Your task to perform on an android device: change keyboard looks Image 0: 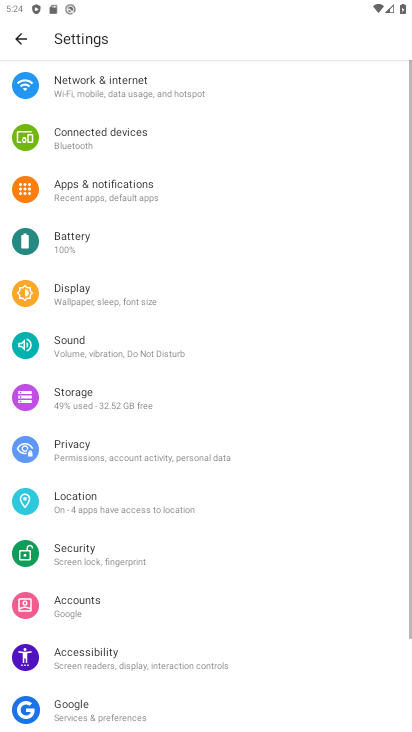
Step 0: press home button
Your task to perform on an android device: change keyboard looks Image 1: 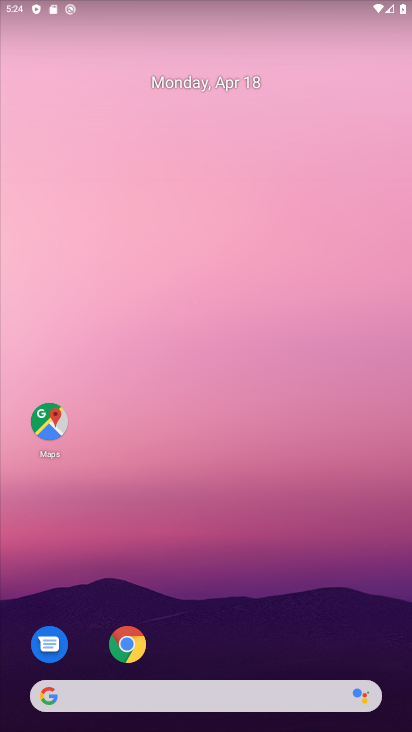
Step 1: drag from (217, 636) to (275, 55)
Your task to perform on an android device: change keyboard looks Image 2: 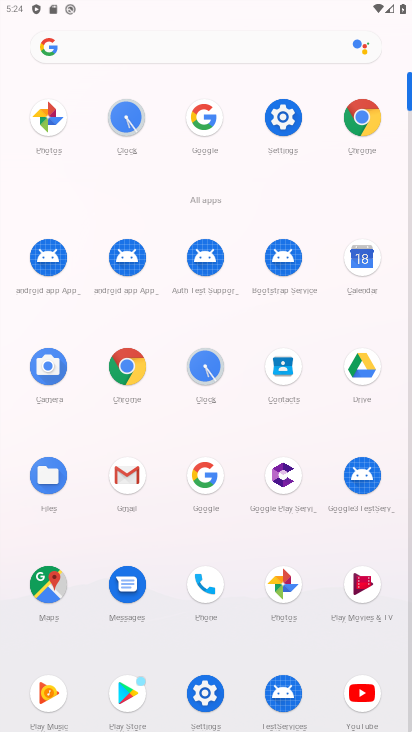
Step 2: click (281, 111)
Your task to perform on an android device: change keyboard looks Image 3: 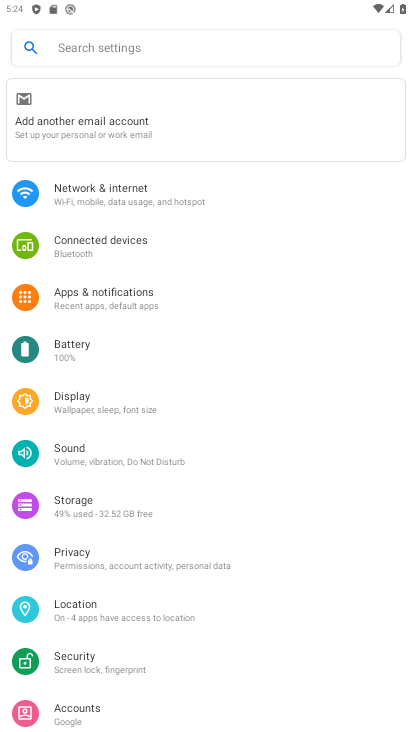
Step 3: drag from (142, 697) to (215, 100)
Your task to perform on an android device: change keyboard looks Image 4: 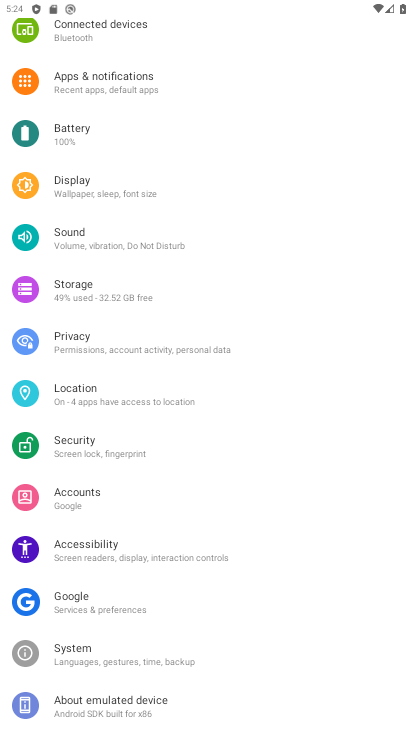
Step 4: click (86, 648)
Your task to perform on an android device: change keyboard looks Image 5: 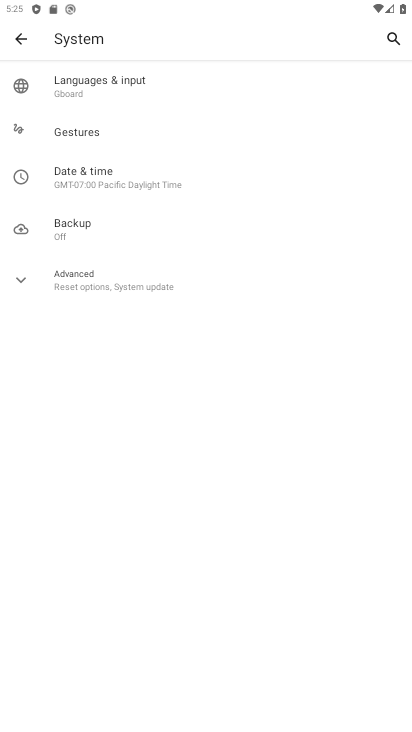
Step 5: click (103, 85)
Your task to perform on an android device: change keyboard looks Image 6: 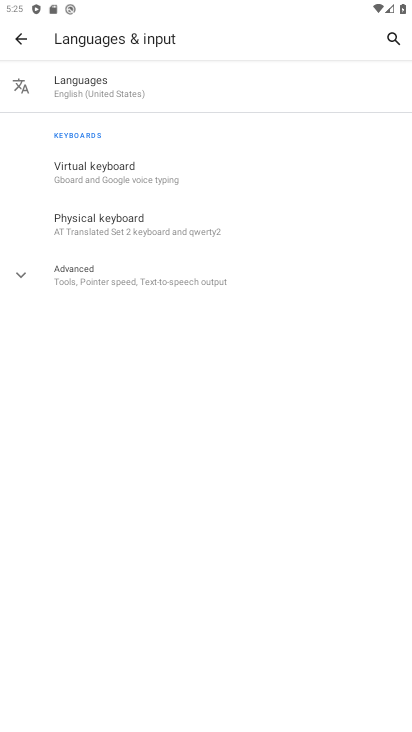
Step 6: click (124, 164)
Your task to perform on an android device: change keyboard looks Image 7: 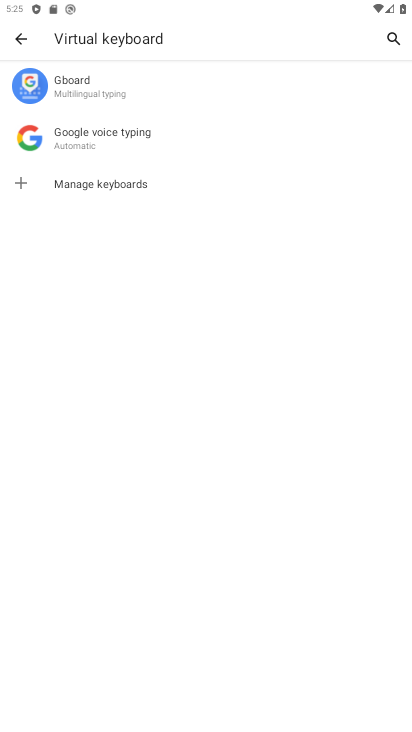
Step 7: click (102, 83)
Your task to perform on an android device: change keyboard looks Image 8: 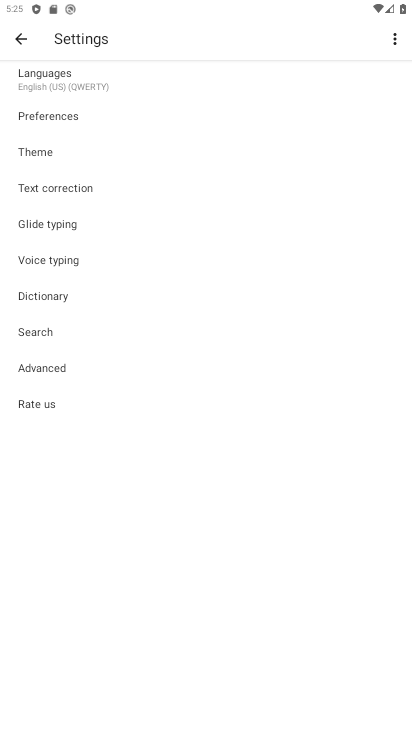
Step 8: click (55, 151)
Your task to perform on an android device: change keyboard looks Image 9: 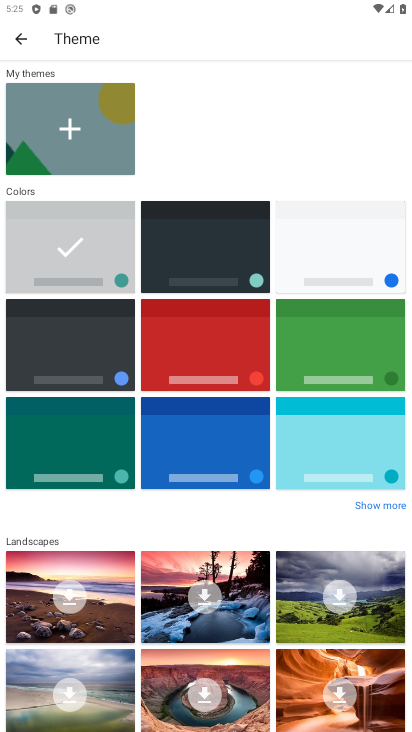
Step 9: click (223, 331)
Your task to perform on an android device: change keyboard looks Image 10: 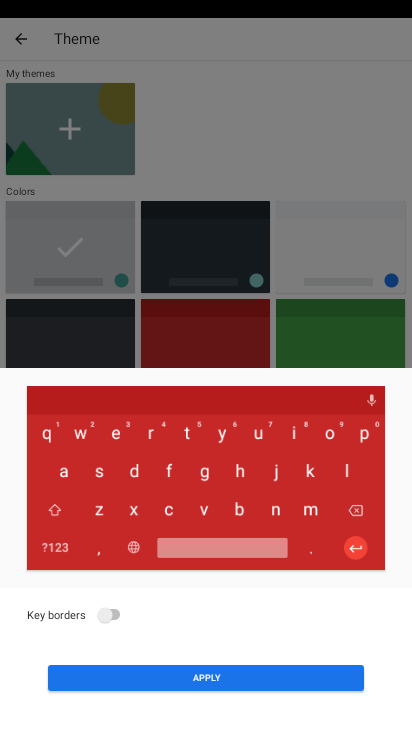
Step 10: click (213, 676)
Your task to perform on an android device: change keyboard looks Image 11: 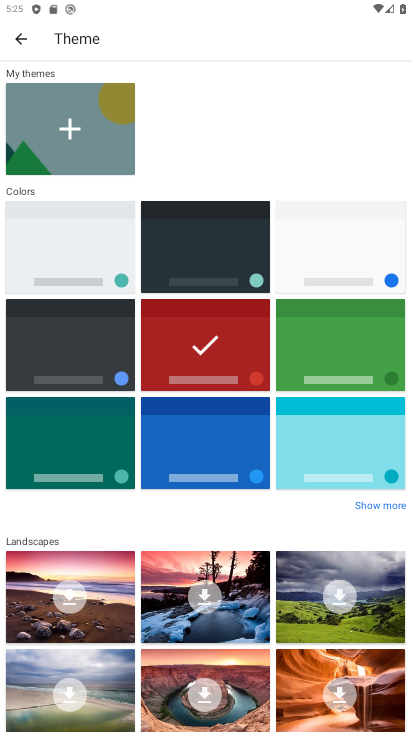
Step 11: task complete